Your task to perform on an android device: Go to privacy settings Image 0: 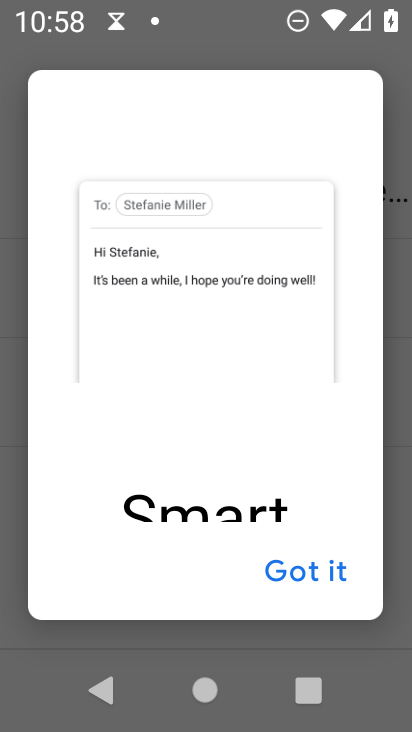
Step 0: press home button
Your task to perform on an android device: Go to privacy settings Image 1: 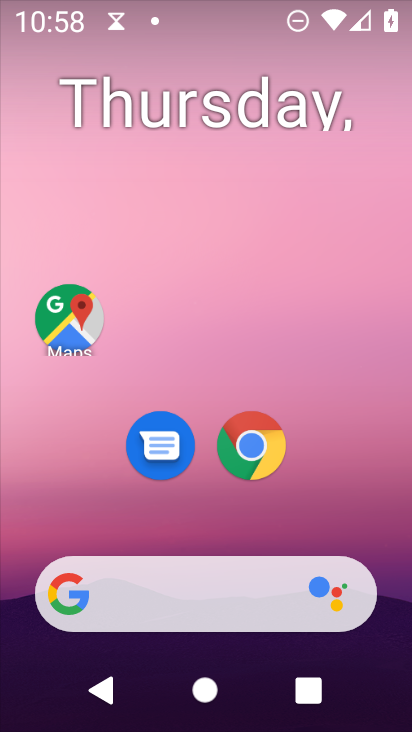
Step 1: drag from (234, 718) to (239, 211)
Your task to perform on an android device: Go to privacy settings Image 2: 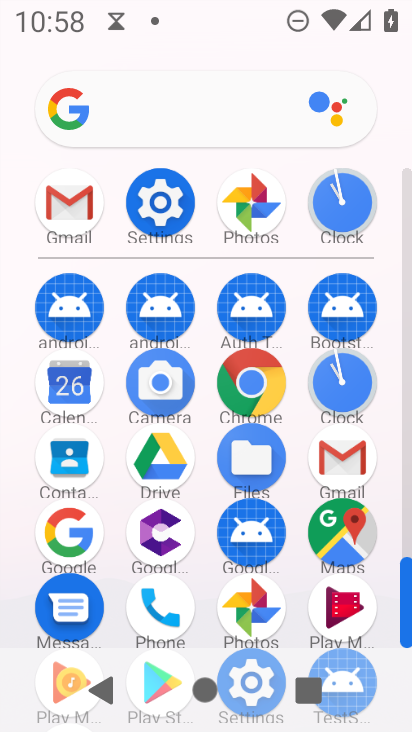
Step 2: click (160, 192)
Your task to perform on an android device: Go to privacy settings Image 3: 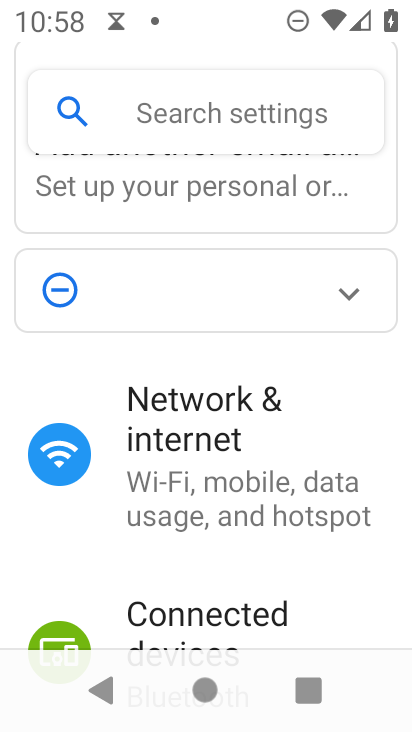
Step 3: drag from (226, 608) to (263, 258)
Your task to perform on an android device: Go to privacy settings Image 4: 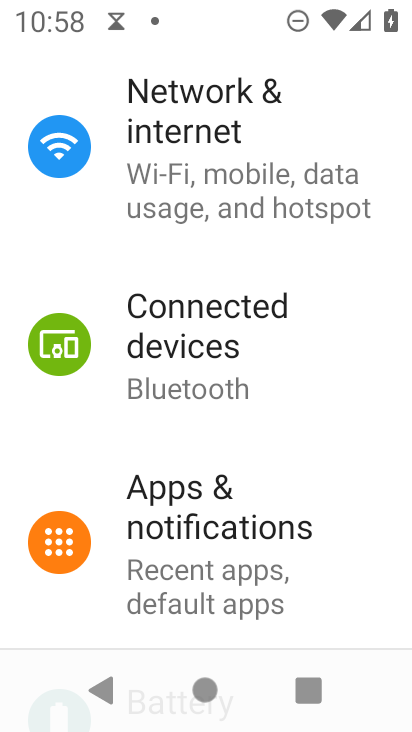
Step 4: drag from (285, 643) to (319, 176)
Your task to perform on an android device: Go to privacy settings Image 5: 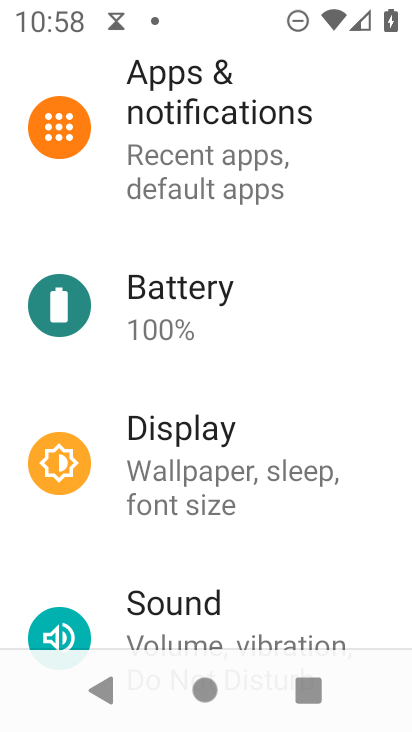
Step 5: drag from (291, 625) to (291, 94)
Your task to perform on an android device: Go to privacy settings Image 6: 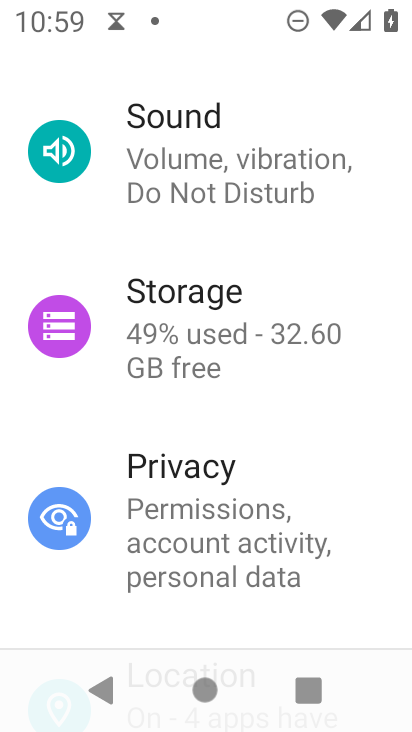
Step 6: click (178, 509)
Your task to perform on an android device: Go to privacy settings Image 7: 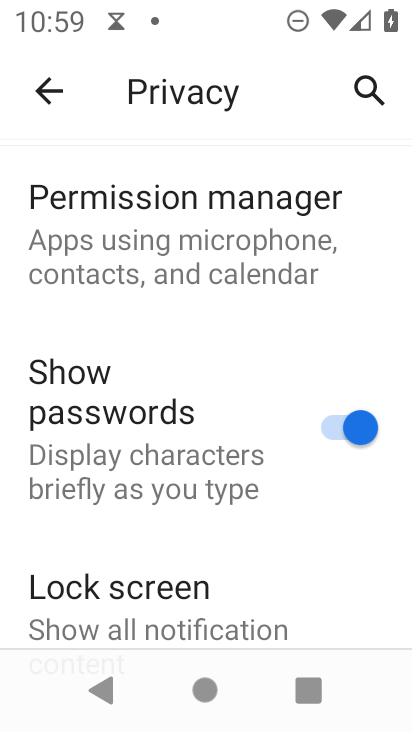
Step 7: task complete